Your task to perform on an android device: toggle notifications settings in the gmail app Image 0: 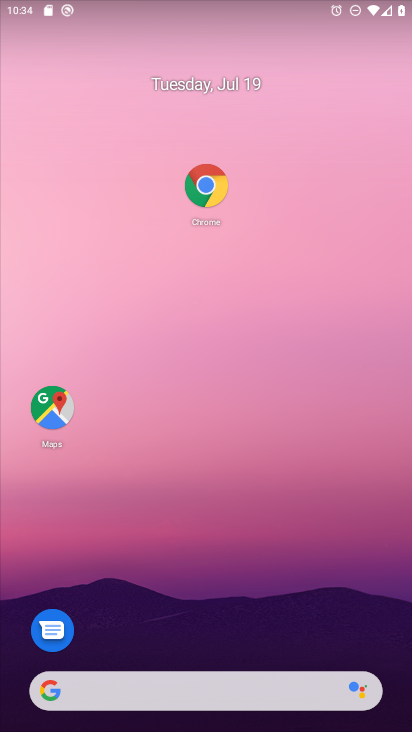
Step 0: drag from (226, 669) to (226, 165)
Your task to perform on an android device: toggle notifications settings in the gmail app Image 1: 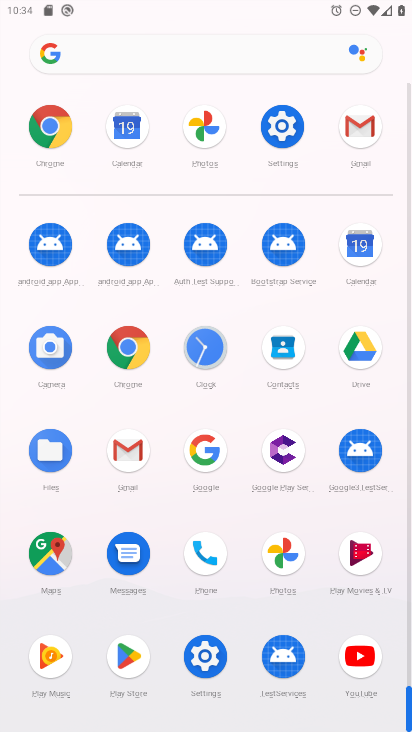
Step 1: click (126, 473)
Your task to perform on an android device: toggle notifications settings in the gmail app Image 2: 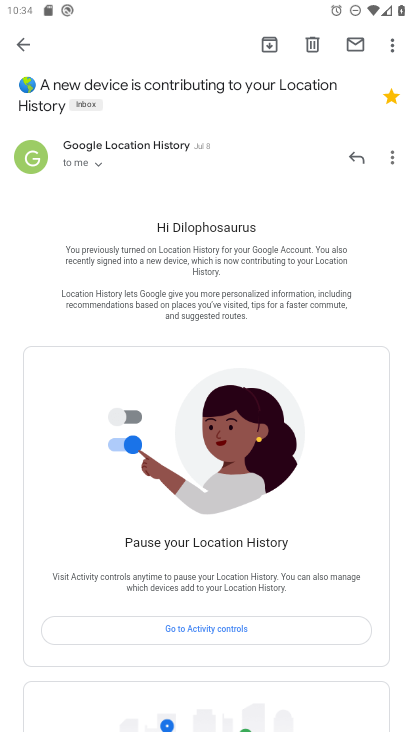
Step 2: click (8, 48)
Your task to perform on an android device: toggle notifications settings in the gmail app Image 3: 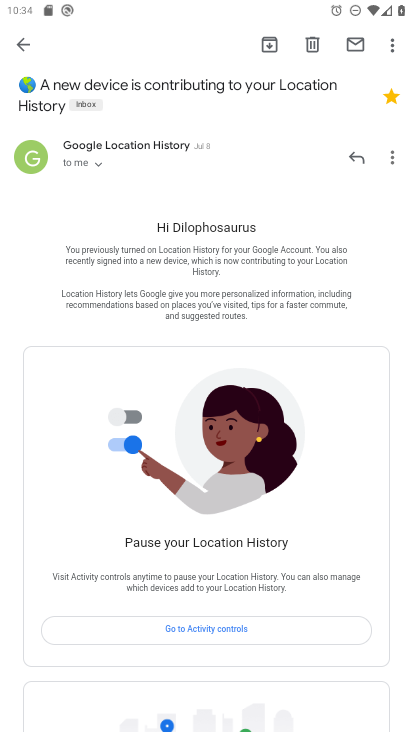
Step 3: click (20, 42)
Your task to perform on an android device: toggle notifications settings in the gmail app Image 4: 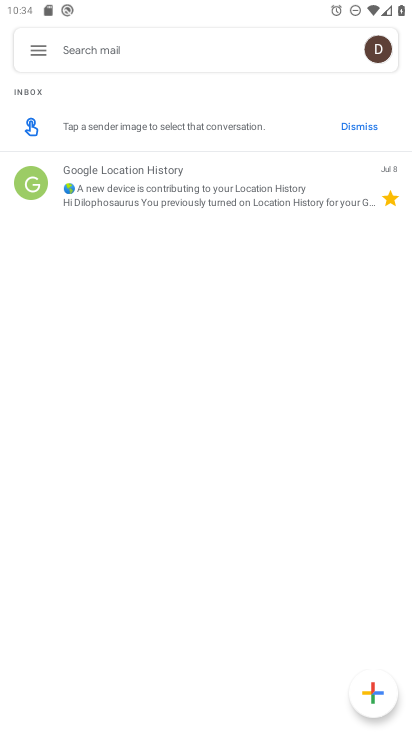
Step 4: click (38, 62)
Your task to perform on an android device: toggle notifications settings in the gmail app Image 5: 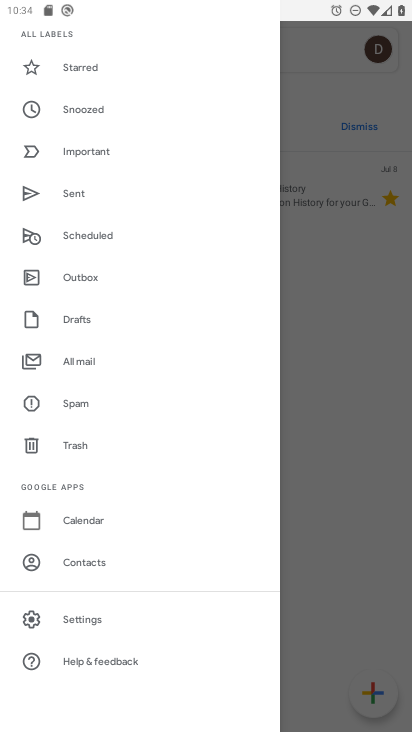
Step 5: click (59, 625)
Your task to perform on an android device: toggle notifications settings in the gmail app Image 6: 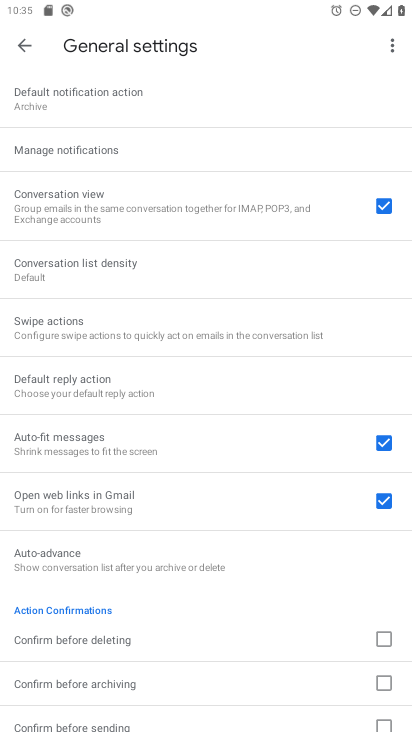
Step 6: click (123, 141)
Your task to perform on an android device: toggle notifications settings in the gmail app Image 7: 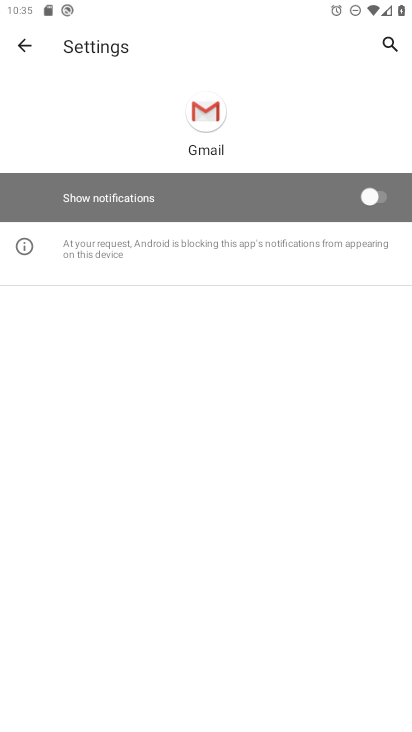
Step 7: click (181, 191)
Your task to perform on an android device: toggle notifications settings in the gmail app Image 8: 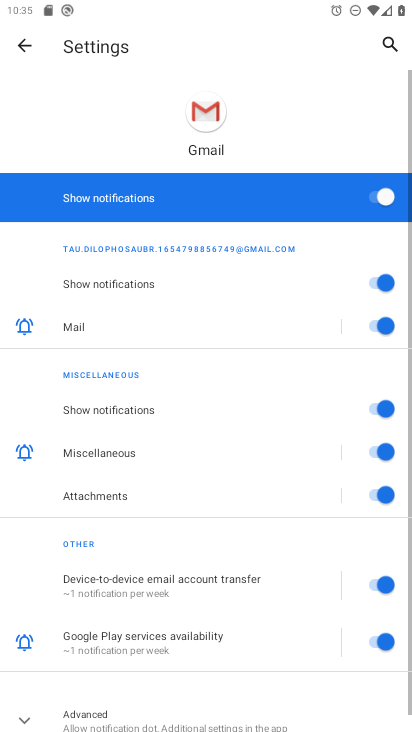
Step 8: task complete